Your task to perform on an android device: Go to network settings Image 0: 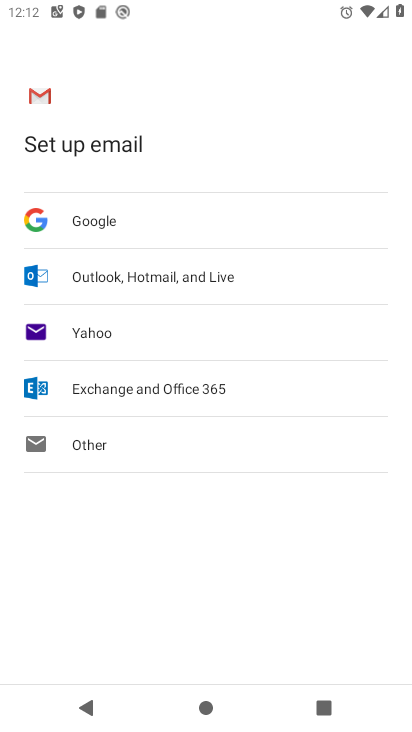
Step 0: press home button
Your task to perform on an android device: Go to network settings Image 1: 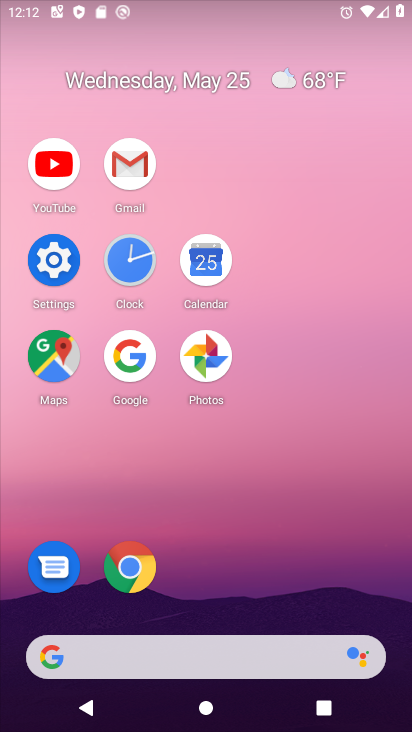
Step 1: click (71, 251)
Your task to perform on an android device: Go to network settings Image 2: 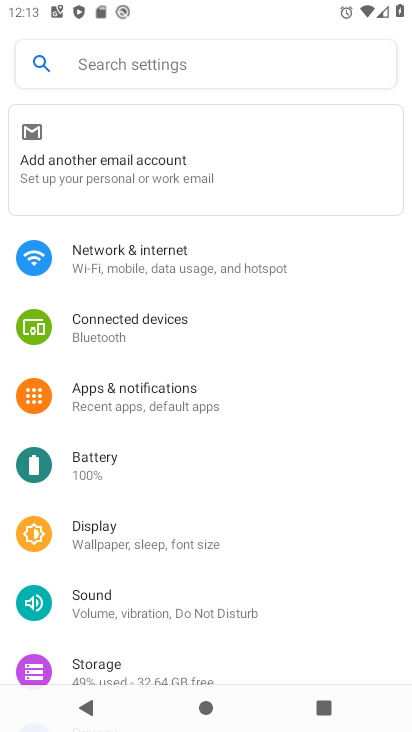
Step 2: click (245, 246)
Your task to perform on an android device: Go to network settings Image 3: 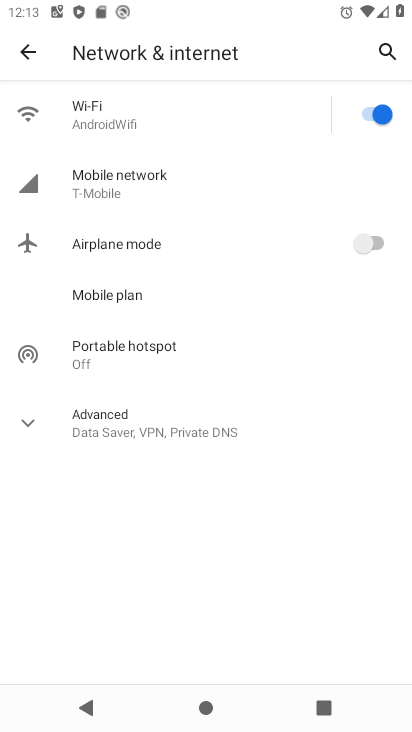
Step 3: task complete